Your task to perform on an android device: Go to Google Image 0: 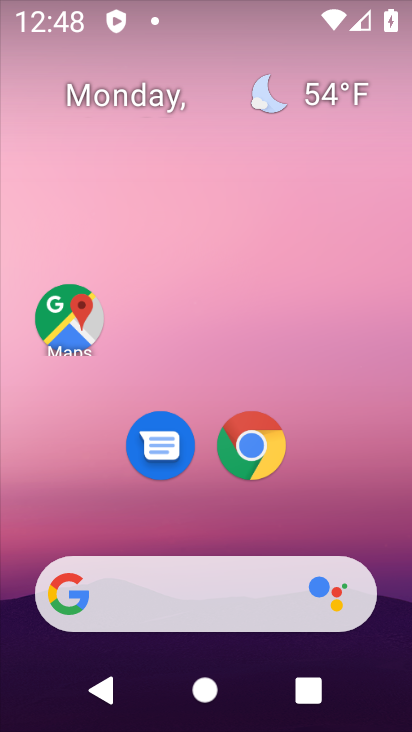
Step 0: drag from (370, 482) to (350, 107)
Your task to perform on an android device: Go to Google Image 1: 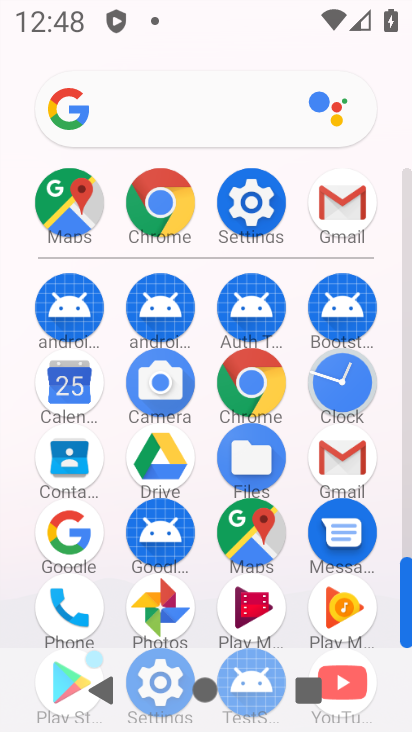
Step 1: click (81, 543)
Your task to perform on an android device: Go to Google Image 2: 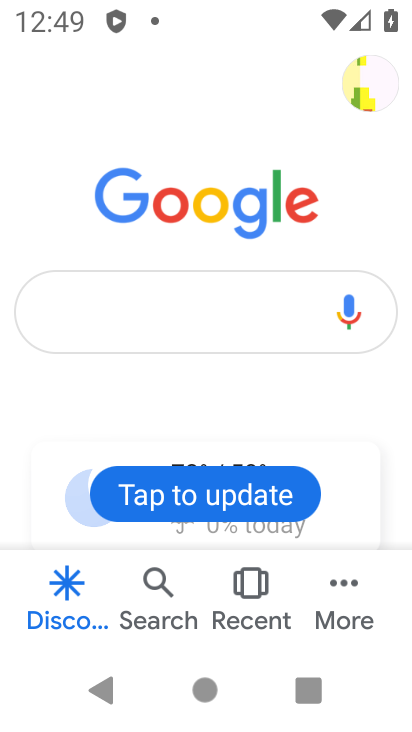
Step 2: task complete